Your task to perform on an android device: allow notifications from all sites in the chrome app Image 0: 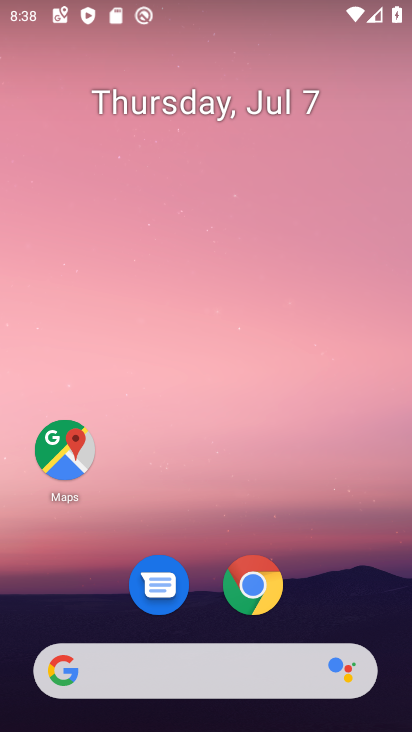
Step 0: drag from (219, 485) to (247, 3)
Your task to perform on an android device: allow notifications from all sites in the chrome app Image 1: 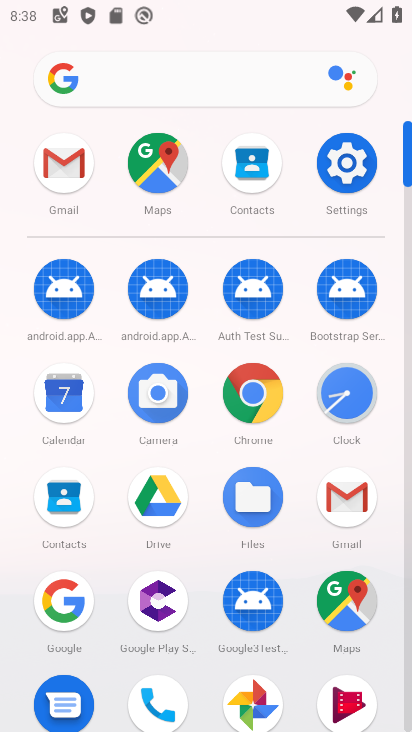
Step 1: click (265, 399)
Your task to perform on an android device: allow notifications from all sites in the chrome app Image 2: 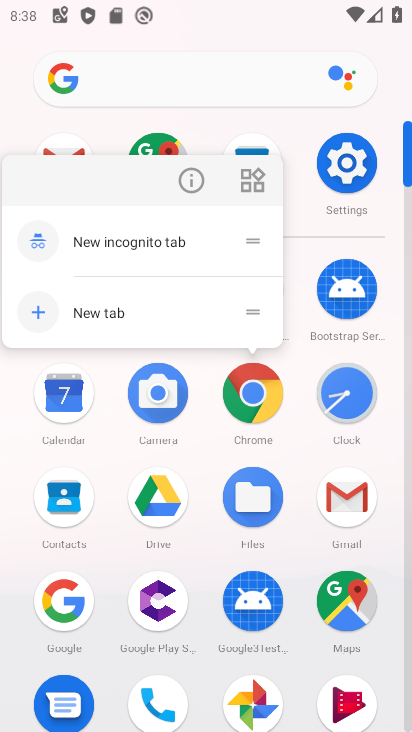
Step 2: click (263, 396)
Your task to perform on an android device: allow notifications from all sites in the chrome app Image 3: 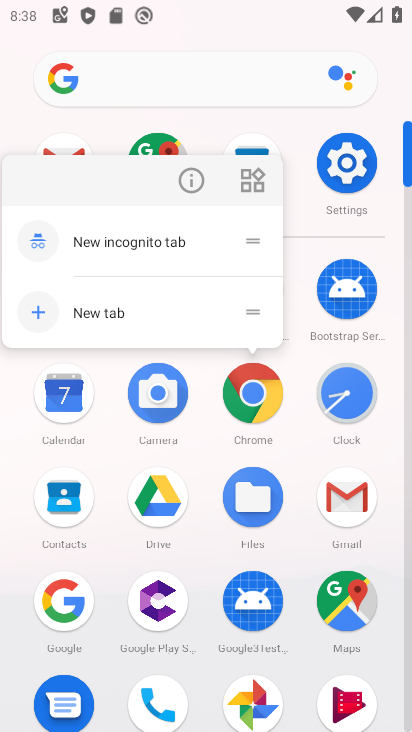
Step 3: click (263, 390)
Your task to perform on an android device: allow notifications from all sites in the chrome app Image 4: 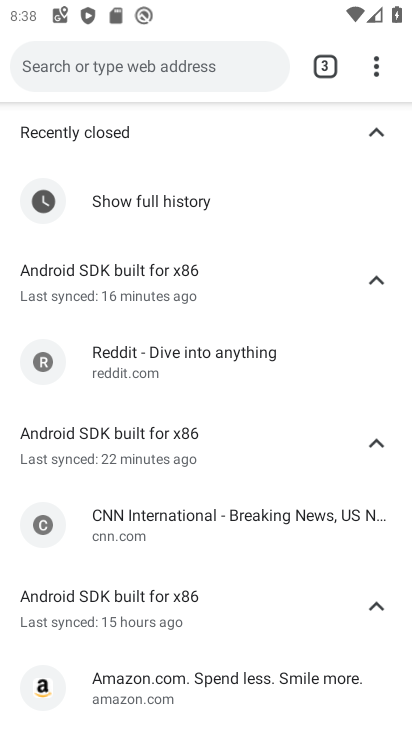
Step 4: click (379, 68)
Your task to perform on an android device: allow notifications from all sites in the chrome app Image 5: 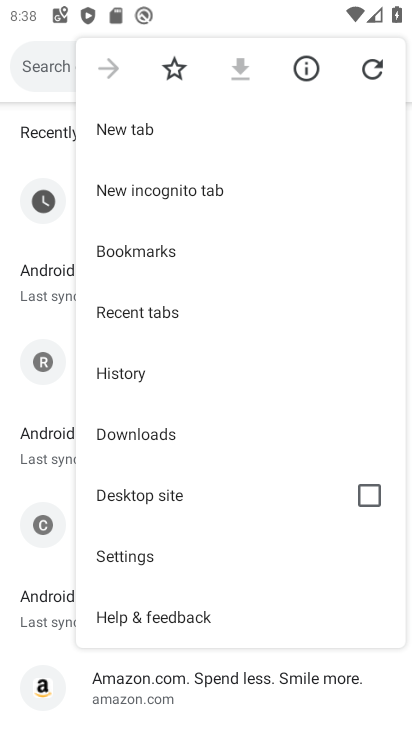
Step 5: click (146, 553)
Your task to perform on an android device: allow notifications from all sites in the chrome app Image 6: 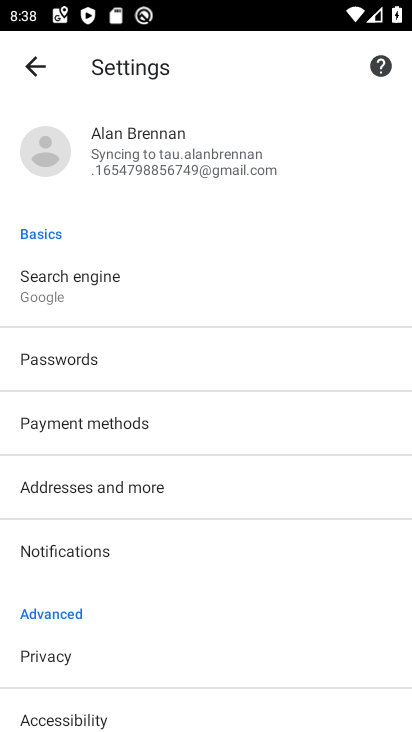
Step 6: click (152, 550)
Your task to perform on an android device: allow notifications from all sites in the chrome app Image 7: 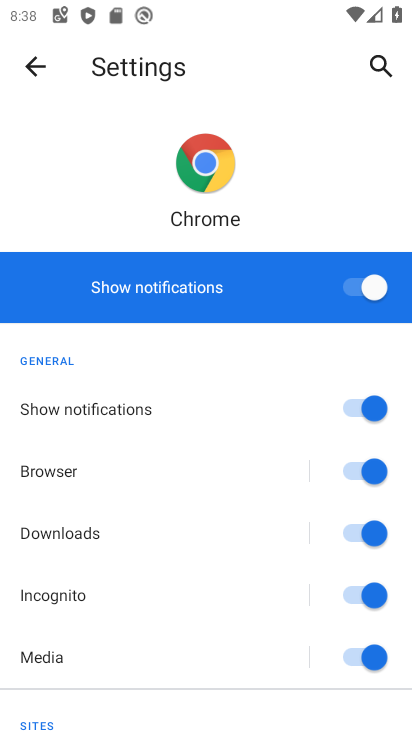
Step 7: task complete